Your task to perform on an android device: move a message to another label in the gmail app Image 0: 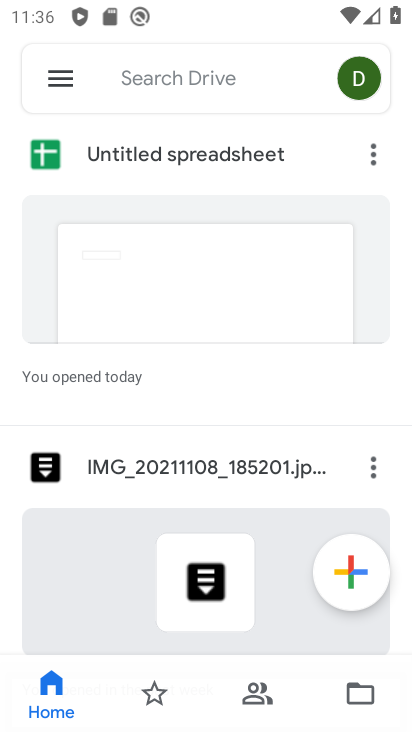
Step 0: press home button
Your task to perform on an android device: move a message to another label in the gmail app Image 1: 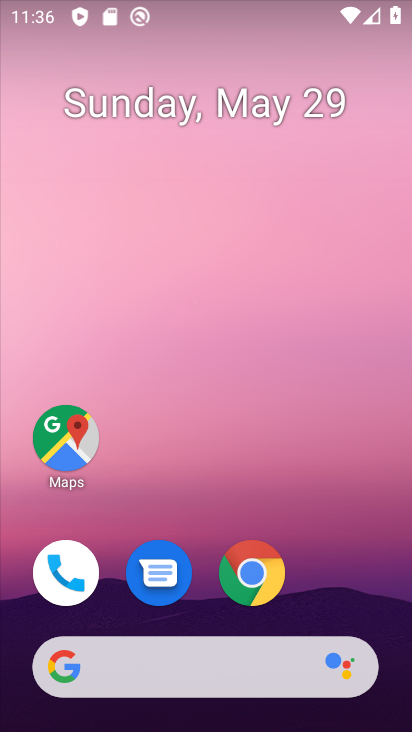
Step 1: drag from (339, 585) to (298, 128)
Your task to perform on an android device: move a message to another label in the gmail app Image 2: 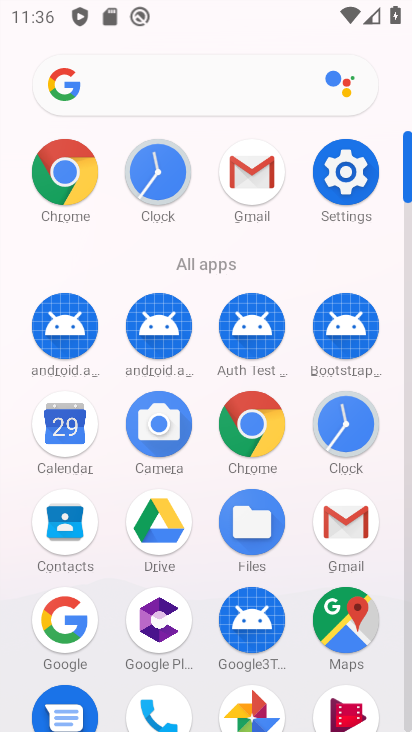
Step 2: click (252, 181)
Your task to perform on an android device: move a message to another label in the gmail app Image 3: 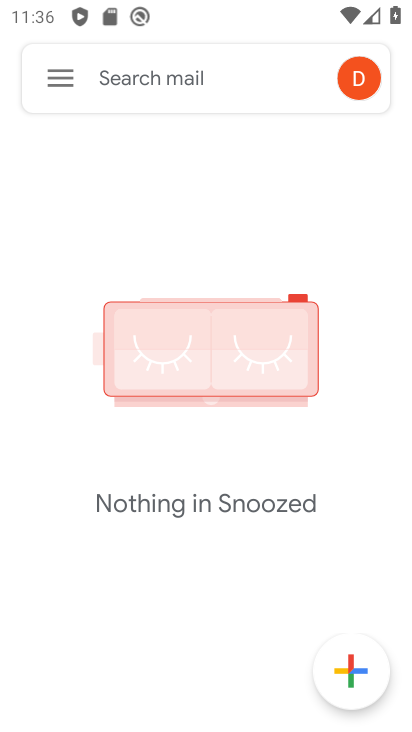
Step 3: click (51, 91)
Your task to perform on an android device: move a message to another label in the gmail app Image 4: 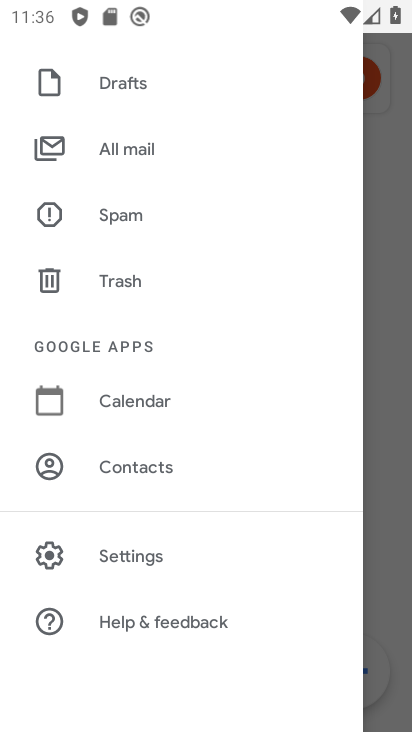
Step 4: task complete